Your task to perform on an android device: turn pop-ups off in chrome Image 0: 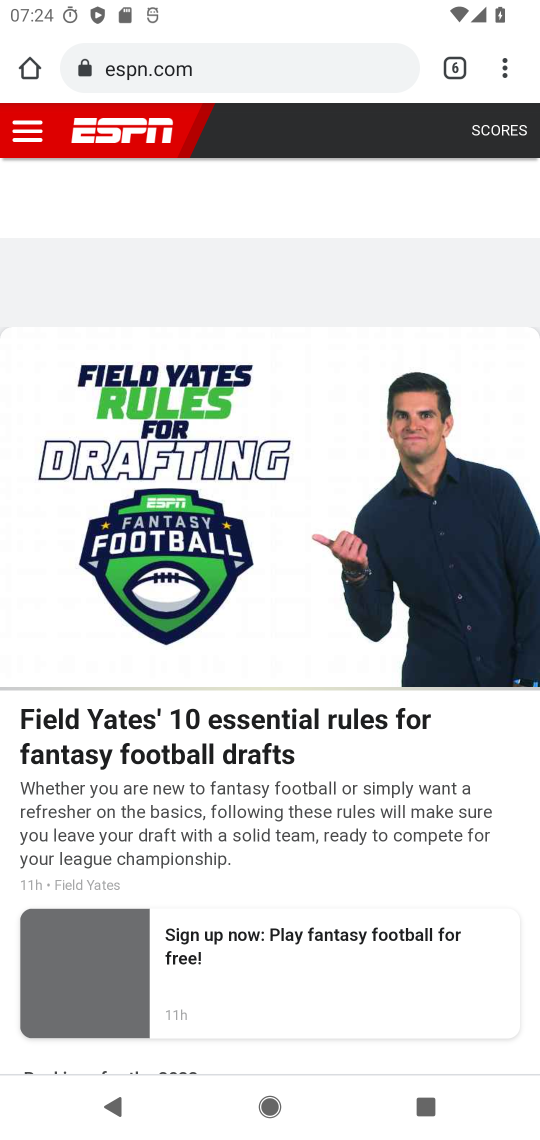
Step 0: press home button
Your task to perform on an android device: turn pop-ups off in chrome Image 1: 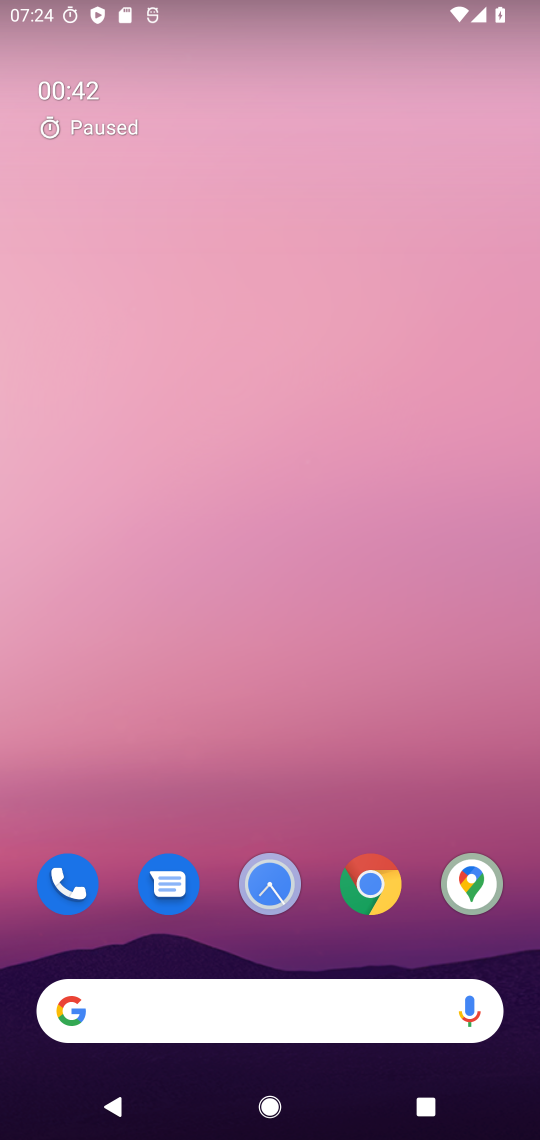
Step 1: click (391, 877)
Your task to perform on an android device: turn pop-ups off in chrome Image 2: 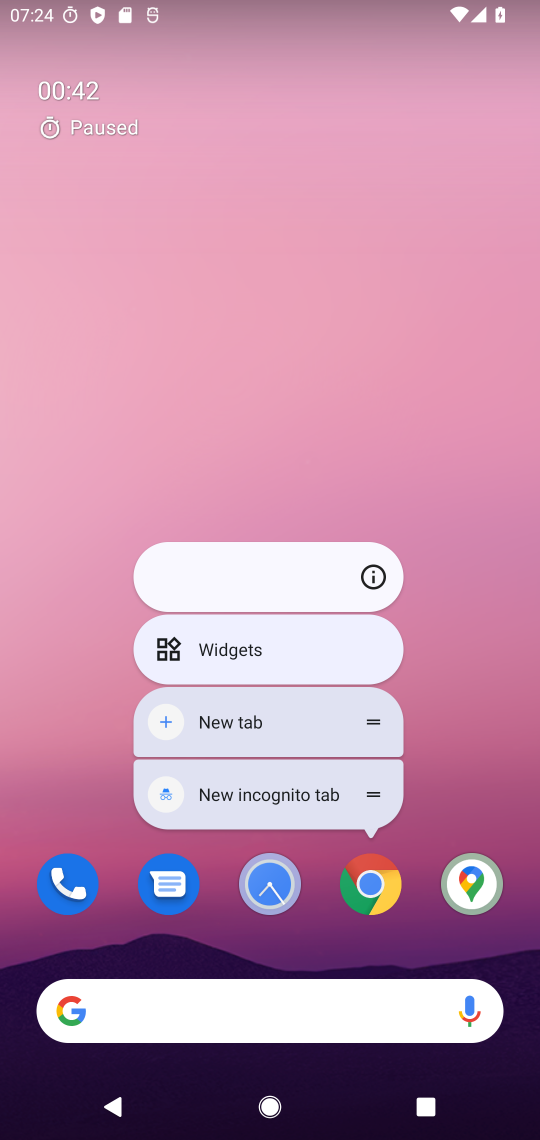
Step 2: click (391, 877)
Your task to perform on an android device: turn pop-ups off in chrome Image 3: 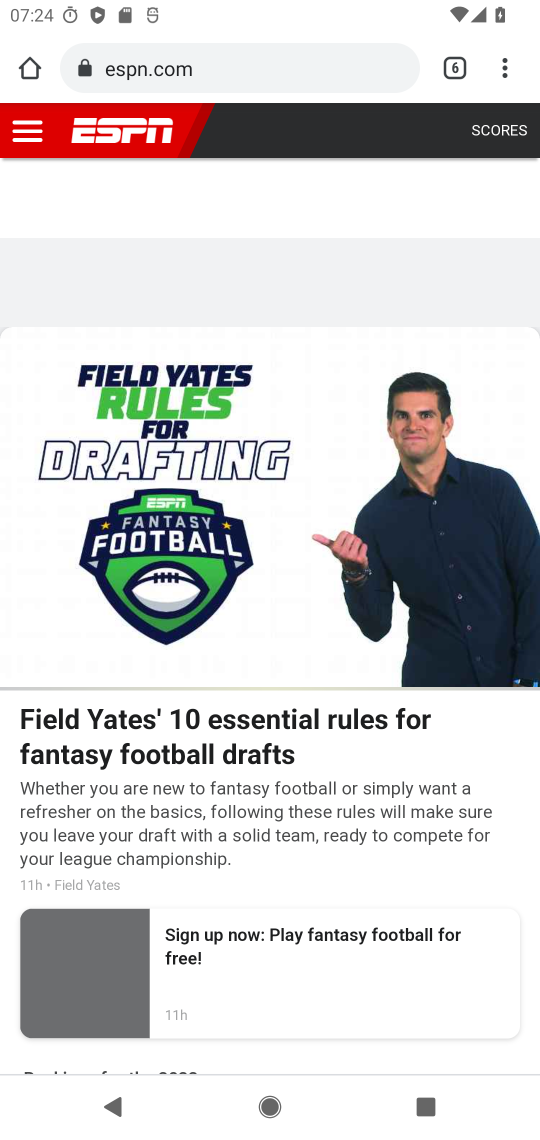
Step 3: drag from (506, 65) to (303, 829)
Your task to perform on an android device: turn pop-ups off in chrome Image 4: 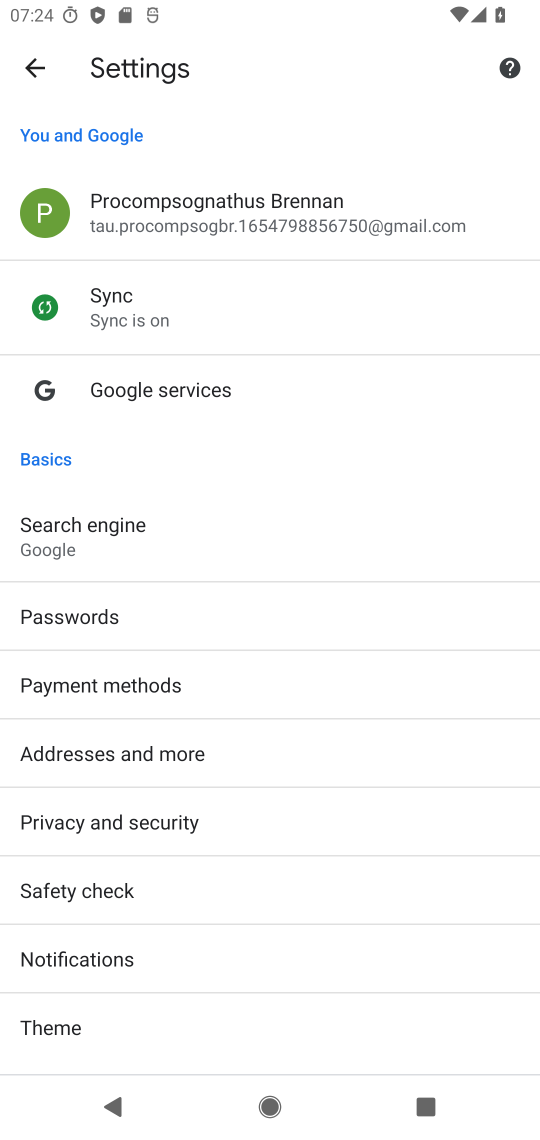
Step 4: drag from (214, 476) to (187, 16)
Your task to perform on an android device: turn pop-ups off in chrome Image 5: 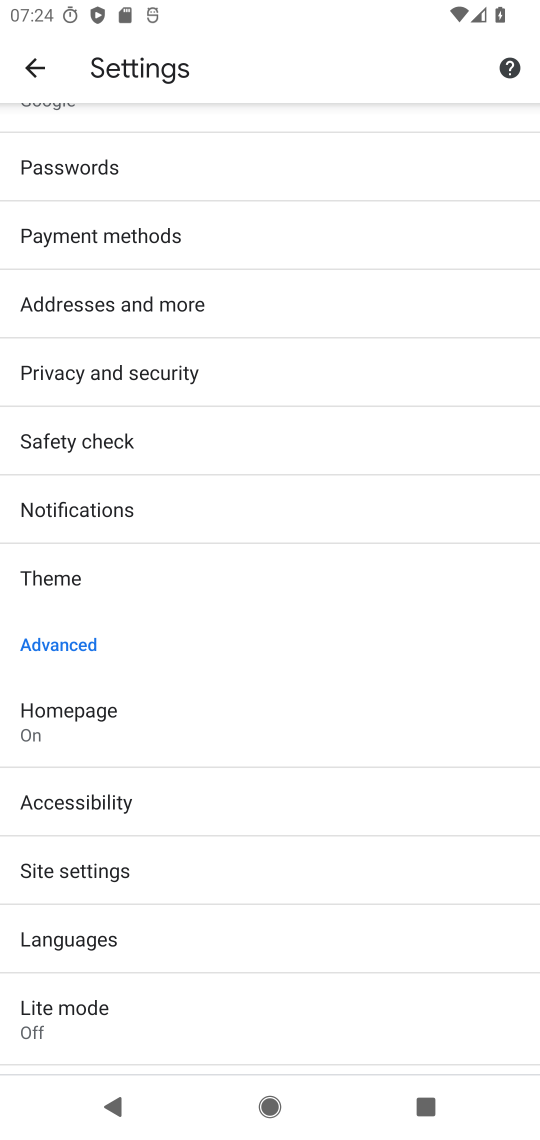
Step 5: drag from (167, 651) to (200, 188)
Your task to perform on an android device: turn pop-ups off in chrome Image 6: 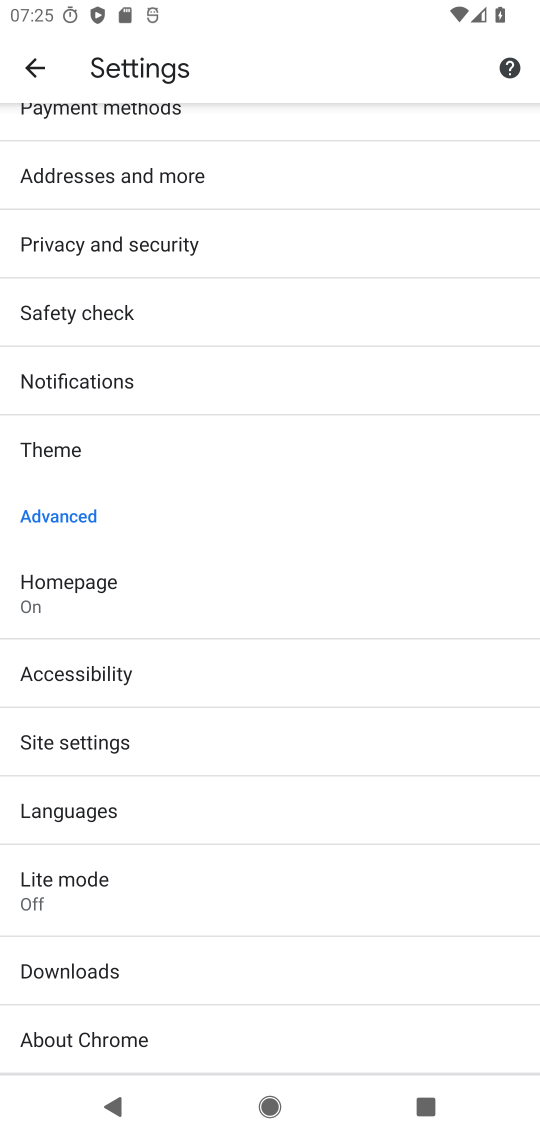
Step 6: click (135, 737)
Your task to perform on an android device: turn pop-ups off in chrome Image 7: 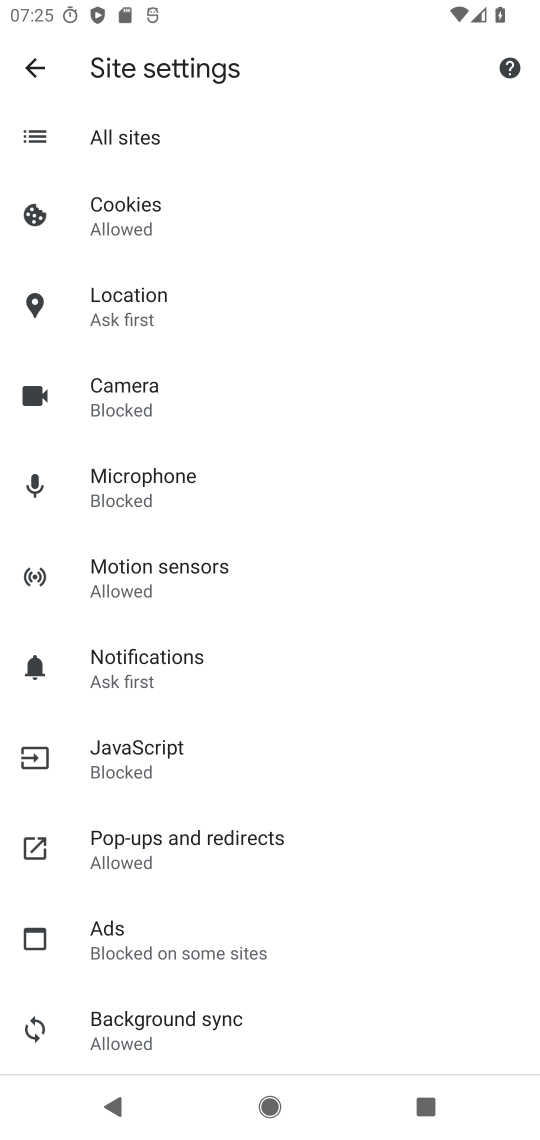
Step 7: click (196, 859)
Your task to perform on an android device: turn pop-ups off in chrome Image 8: 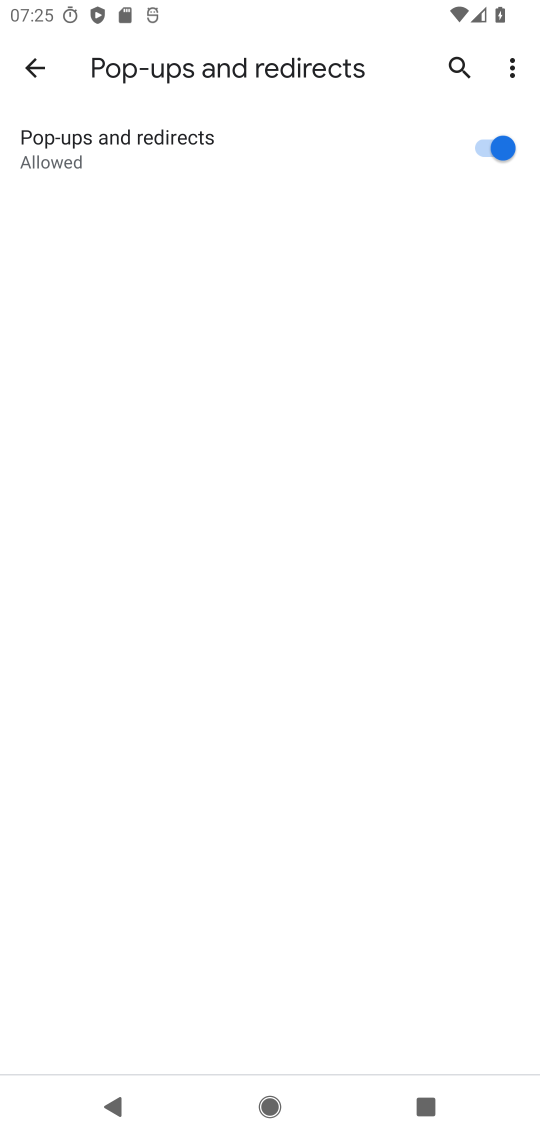
Step 8: click (500, 135)
Your task to perform on an android device: turn pop-ups off in chrome Image 9: 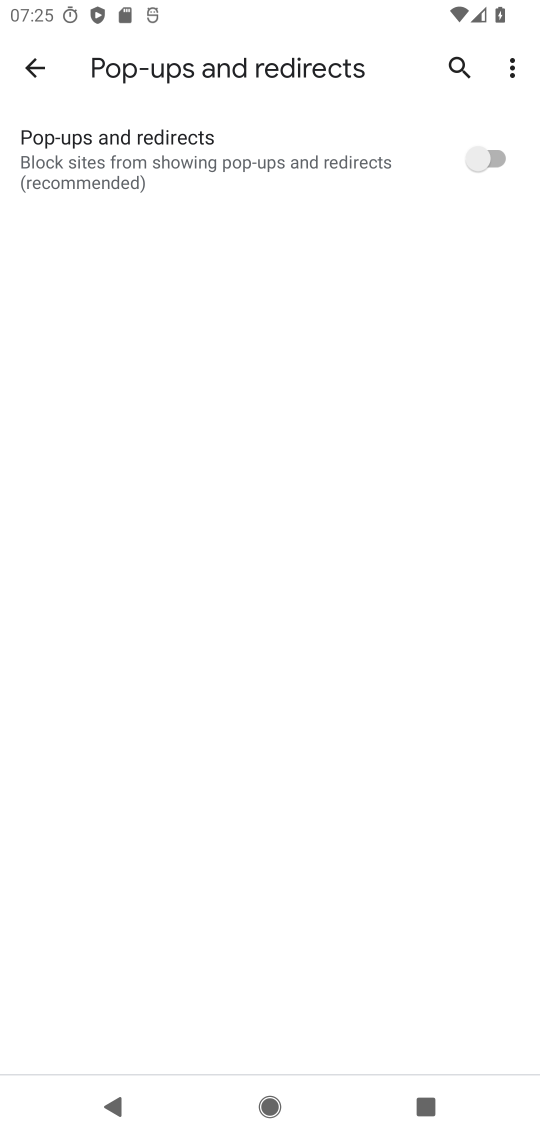
Step 9: task complete